Your task to perform on an android device: Open Google Chrome and click the shortcut for Amazon.com Image 0: 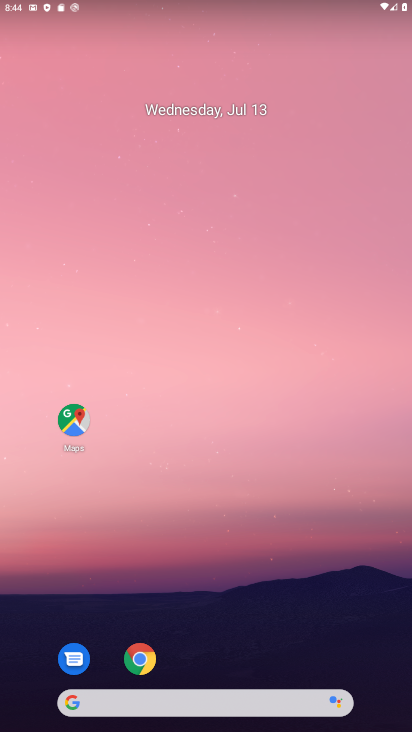
Step 0: drag from (213, 669) to (330, 23)
Your task to perform on an android device: Open Google Chrome and click the shortcut for Amazon.com Image 1: 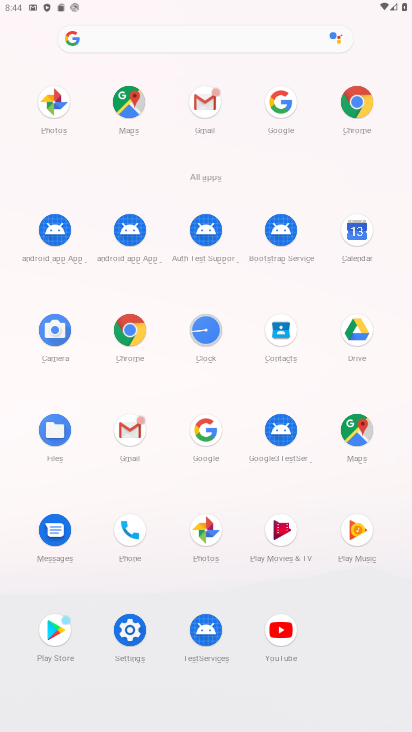
Step 1: click (118, 321)
Your task to perform on an android device: Open Google Chrome and click the shortcut for Amazon.com Image 2: 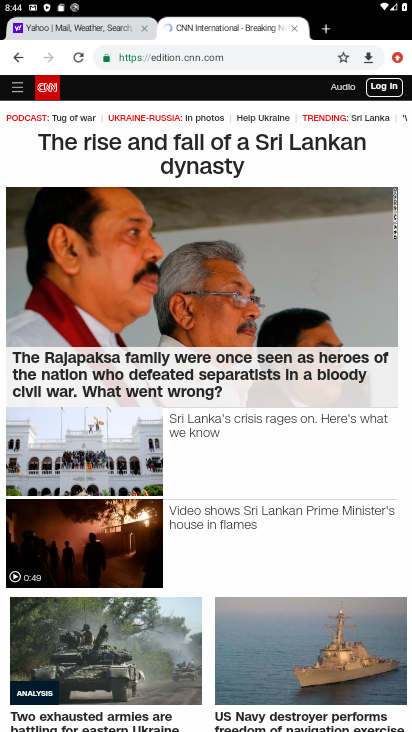
Step 2: drag from (404, 57) to (343, 92)
Your task to perform on an android device: Open Google Chrome and click the shortcut for Amazon.com Image 3: 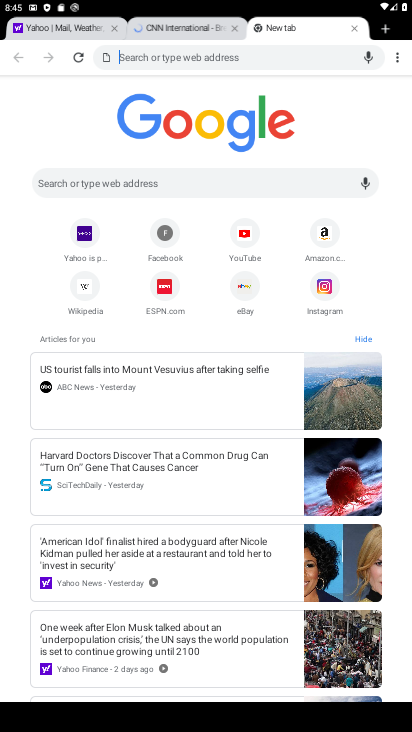
Step 3: click (326, 220)
Your task to perform on an android device: Open Google Chrome and click the shortcut for Amazon.com Image 4: 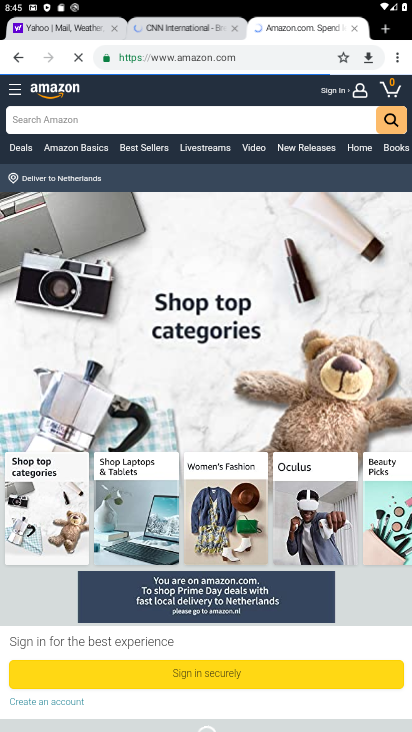
Step 4: task complete